Your task to perform on an android device: turn on wifi Image 0: 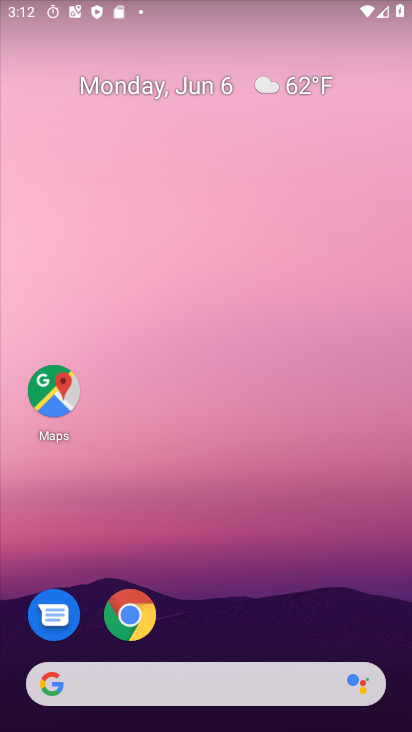
Step 0: drag from (261, 681) to (337, 2)
Your task to perform on an android device: turn on wifi Image 1: 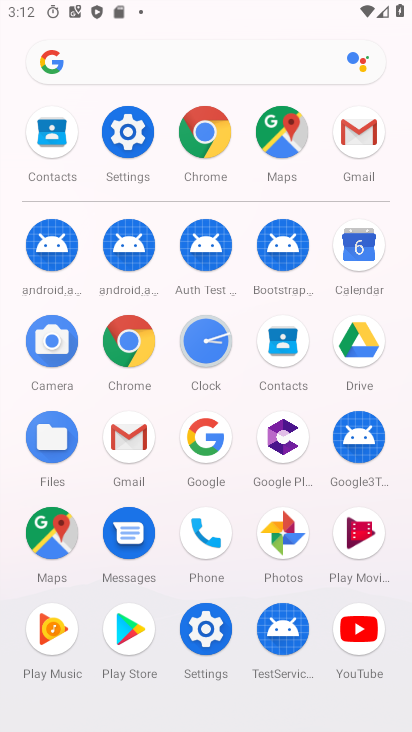
Step 1: click (112, 144)
Your task to perform on an android device: turn on wifi Image 2: 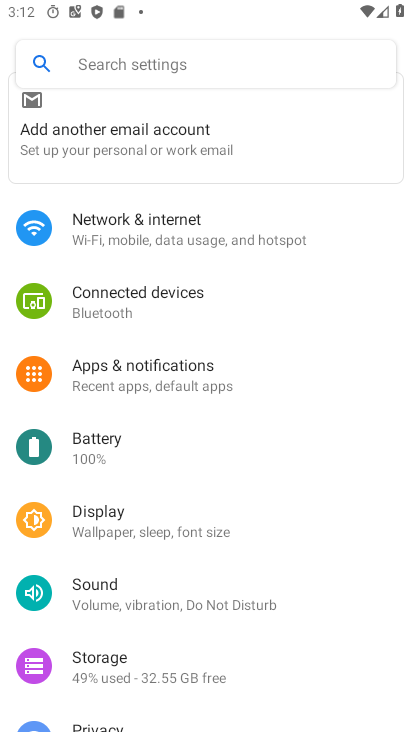
Step 2: click (168, 218)
Your task to perform on an android device: turn on wifi Image 3: 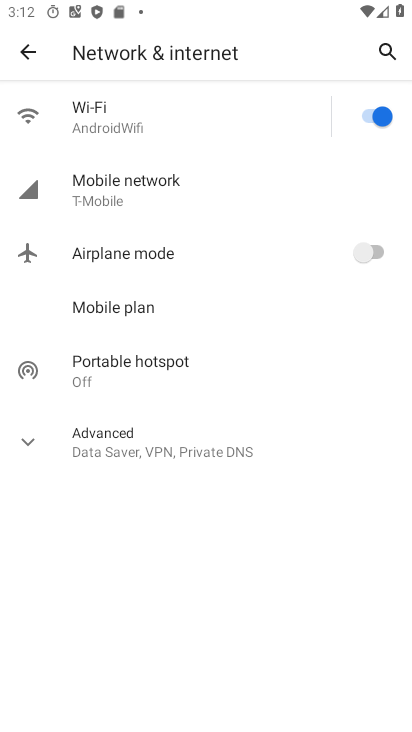
Step 3: task complete